Your task to perform on an android device: Set the phone to "Do not disturb". Image 0: 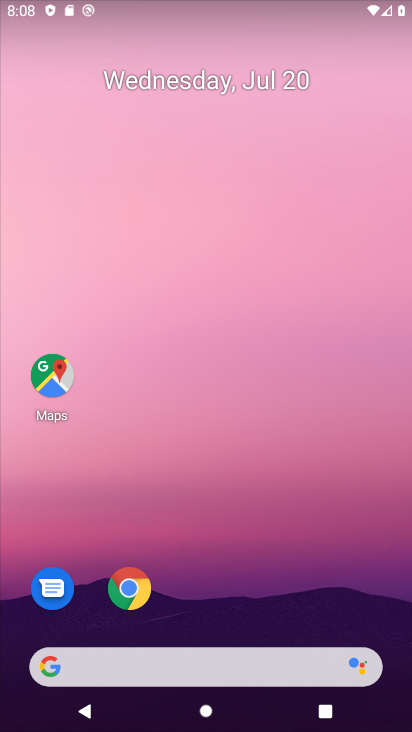
Step 0: drag from (25, 675) to (170, 223)
Your task to perform on an android device: Set the phone to "Do not disturb". Image 1: 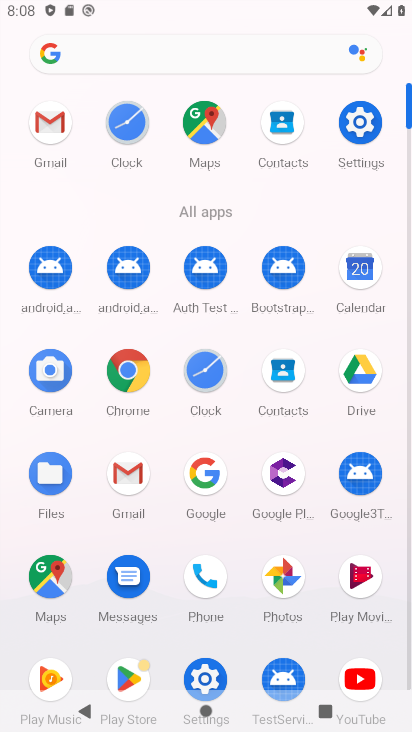
Step 1: click (197, 677)
Your task to perform on an android device: Set the phone to "Do not disturb". Image 2: 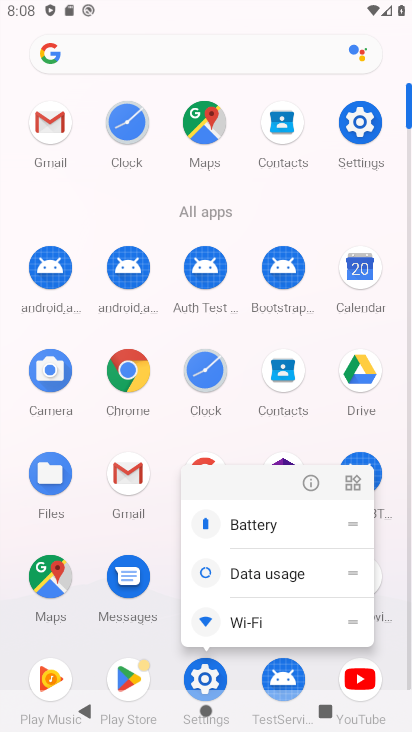
Step 2: click (209, 680)
Your task to perform on an android device: Set the phone to "Do not disturb". Image 3: 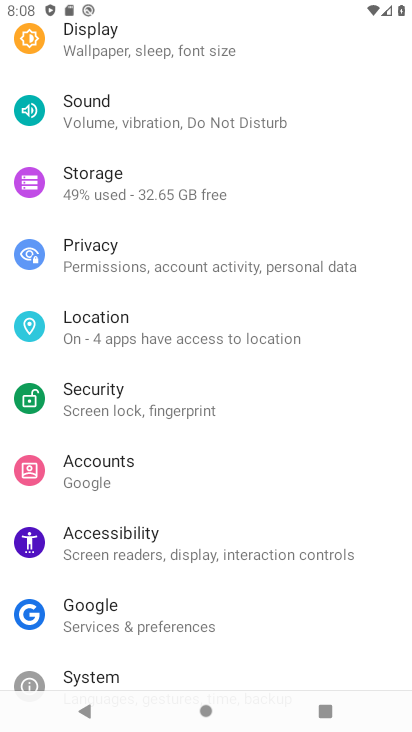
Step 3: click (182, 127)
Your task to perform on an android device: Set the phone to "Do not disturb". Image 4: 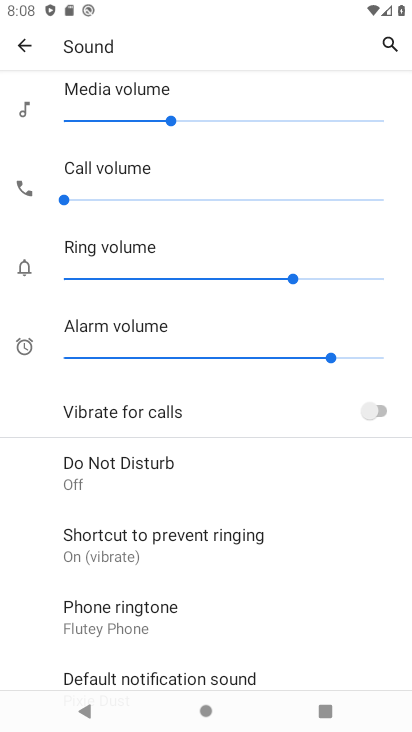
Step 4: click (146, 472)
Your task to perform on an android device: Set the phone to "Do not disturb". Image 5: 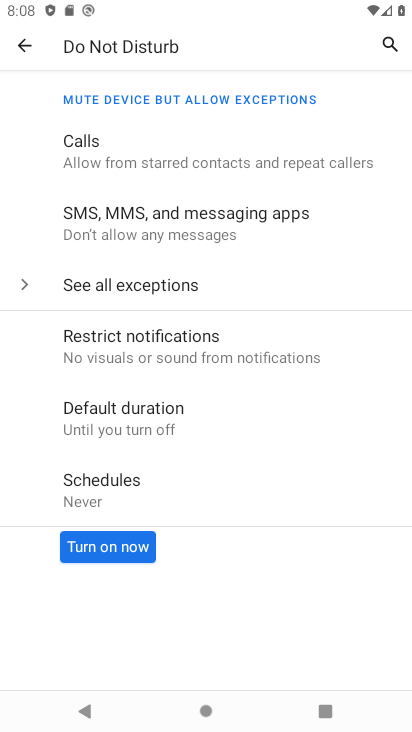
Step 5: click (87, 550)
Your task to perform on an android device: Set the phone to "Do not disturb". Image 6: 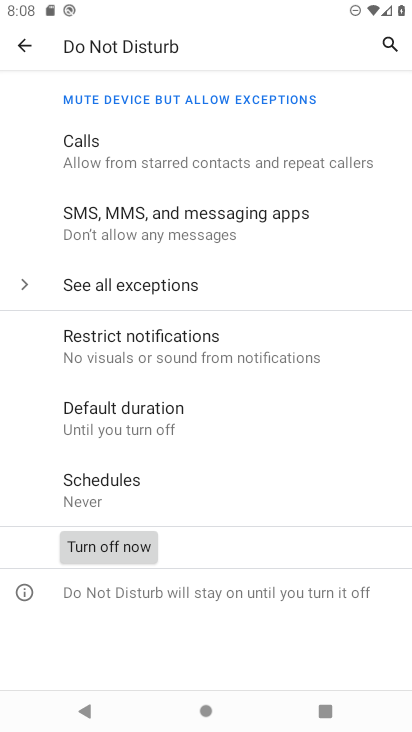
Step 6: task complete